Your task to perform on an android device: choose inbox layout in the gmail app Image 0: 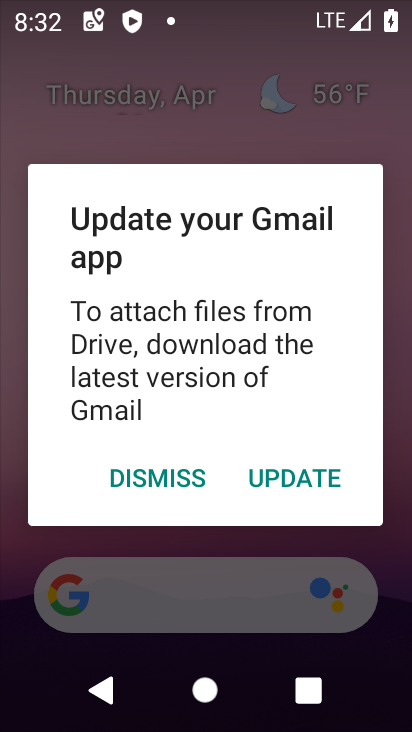
Step 0: press home button
Your task to perform on an android device: choose inbox layout in the gmail app Image 1: 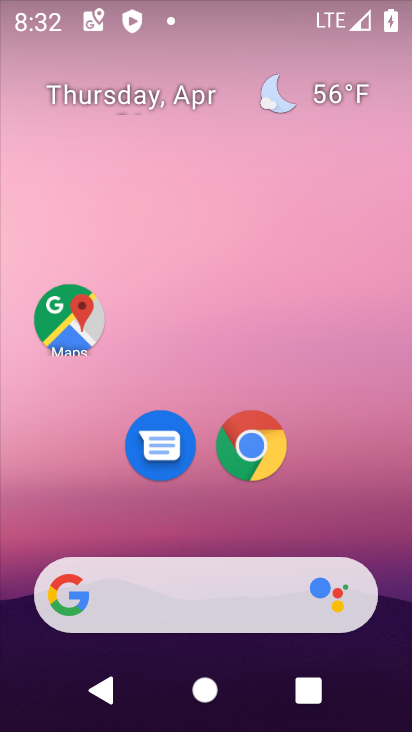
Step 1: drag from (386, 544) to (156, 4)
Your task to perform on an android device: choose inbox layout in the gmail app Image 2: 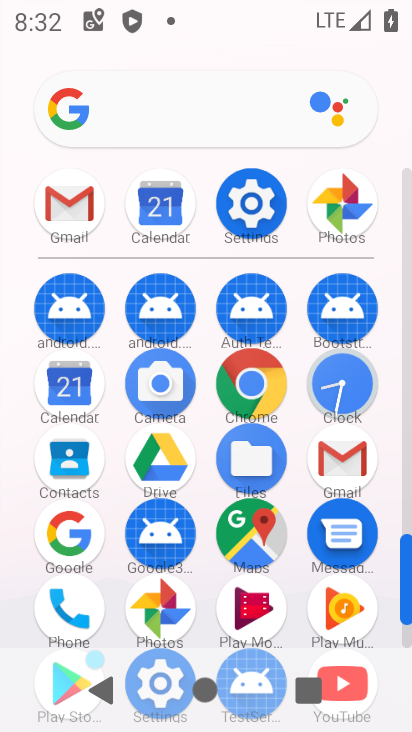
Step 2: click (72, 202)
Your task to perform on an android device: choose inbox layout in the gmail app Image 3: 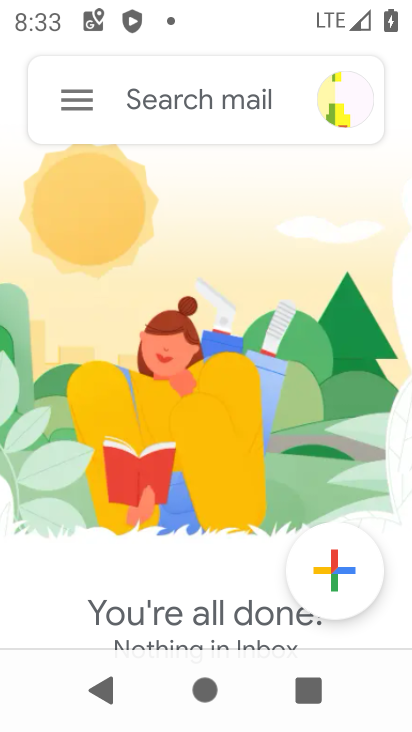
Step 3: click (72, 105)
Your task to perform on an android device: choose inbox layout in the gmail app Image 4: 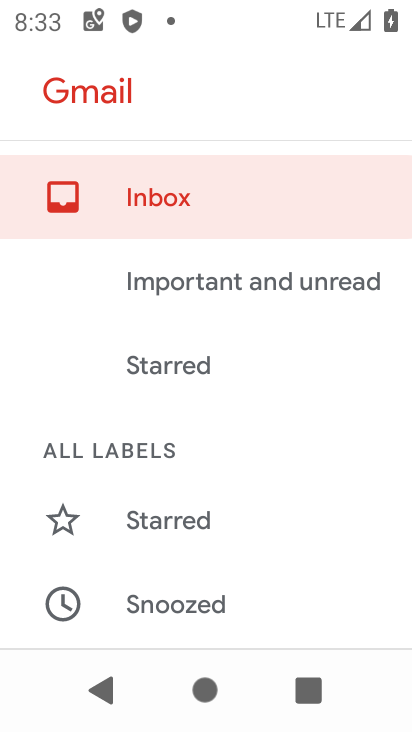
Step 4: drag from (245, 552) to (215, 209)
Your task to perform on an android device: choose inbox layout in the gmail app Image 5: 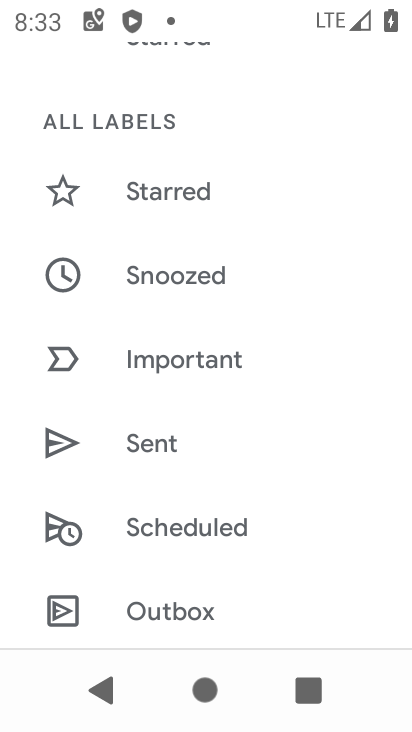
Step 5: drag from (209, 505) to (213, 16)
Your task to perform on an android device: choose inbox layout in the gmail app Image 6: 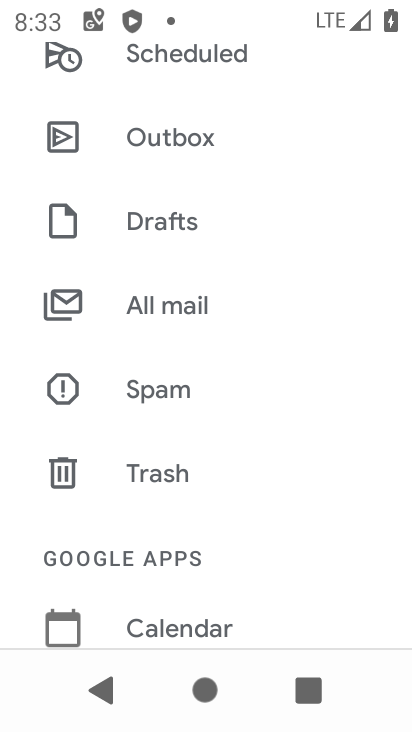
Step 6: drag from (286, 508) to (288, 146)
Your task to perform on an android device: choose inbox layout in the gmail app Image 7: 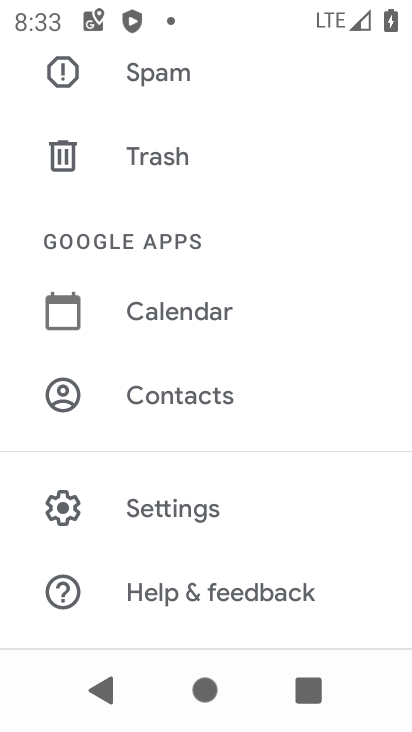
Step 7: click (160, 506)
Your task to perform on an android device: choose inbox layout in the gmail app Image 8: 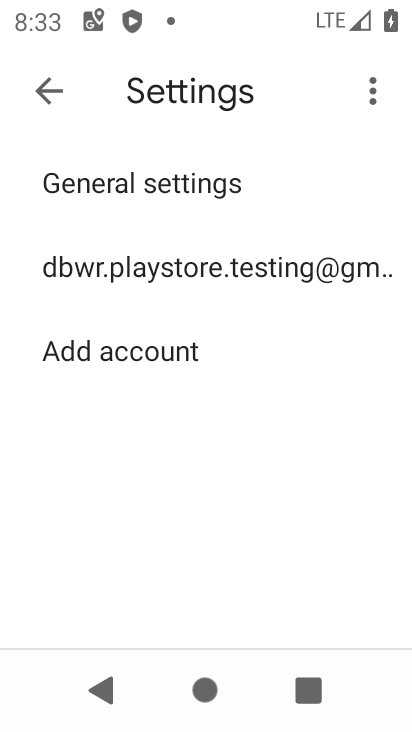
Step 8: click (107, 274)
Your task to perform on an android device: choose inbox layout in the gmail app Image 9: 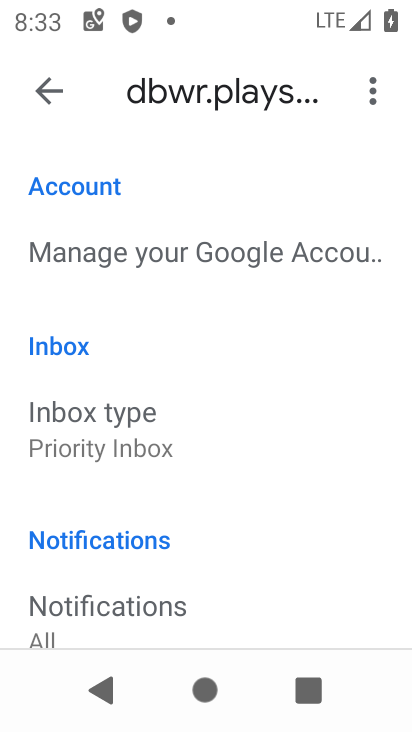
Step 9: click (112, 464)
Your task to perform on an android device: choose inbox layout in the gmail app Image 10: 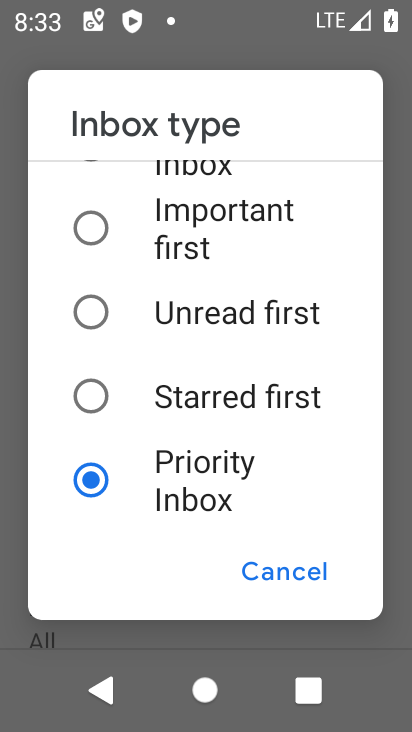
Step 10: click (93, 324)
Your task to perform on an android device: choose inbox layout in the gmail app Image 11: 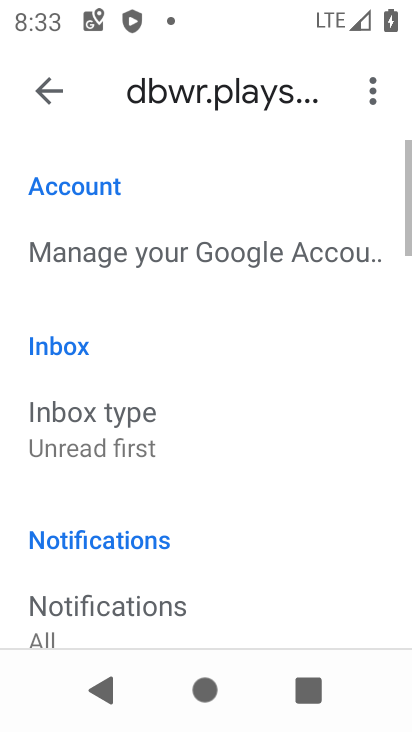
Step 11: task complete